Your task to perform on an android device: Is it going to rain this weekend? Image 0: 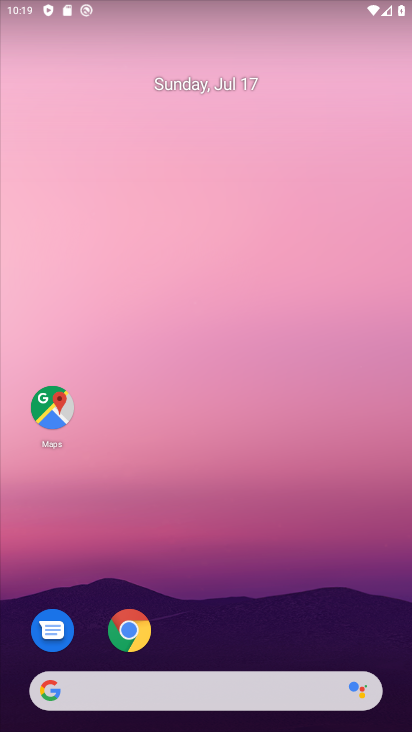
Step 0: drag from (1, 273) to (399, 285)
Your task to perform on an android device: Is it going to rain this weekend? Image 1: 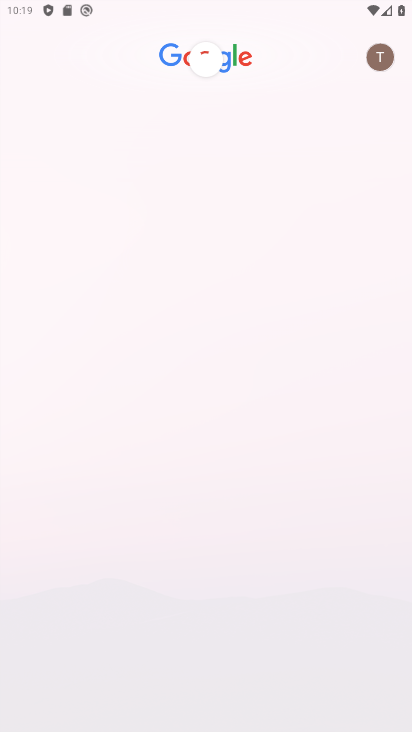
Step 1: drag from (224, 112) to (214, 331)
Your task to perform on an android device: Is it going to rain this weekend? Image 2: 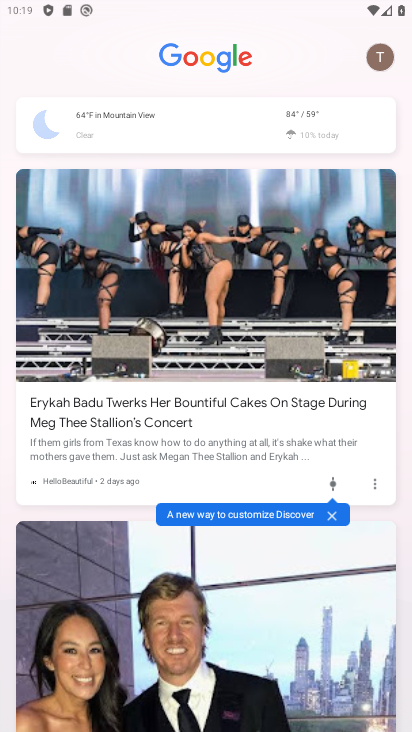
Step 2: click (297, 116)
Your task to perform on an android device: Is it going to rain this weekend? Image 3: 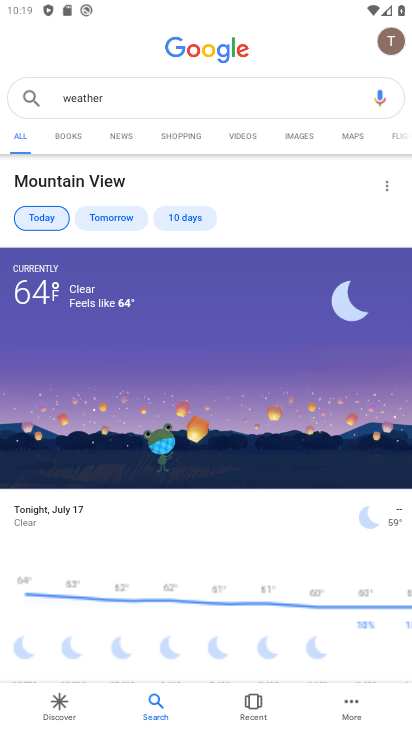
Step 3: click (175, 219)
Your task to perform on an android device: Is it going to rain this weekend? Image 4: 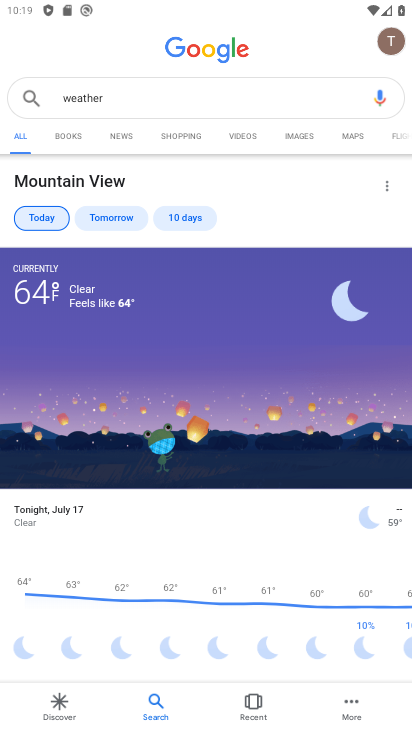
Step 4: click (185, 220)
Your task to perform on an android device: Is it going to rain this weekend? Image 5: 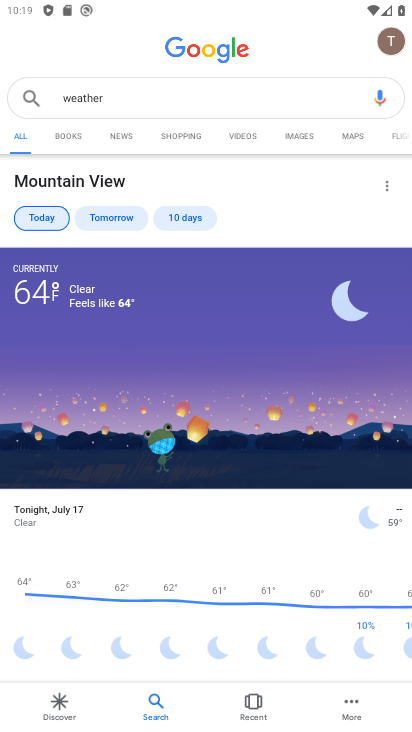
Step 5: click (186, 216)
Your task to perform on an android device: Is it going to rain this weekend? Image 6: 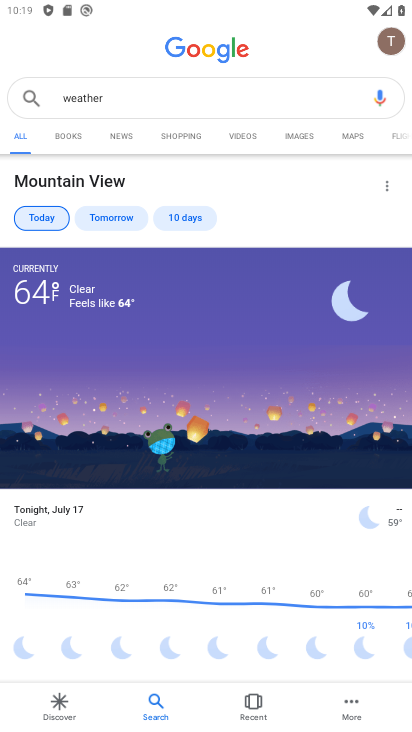
Step 6: click (180, 216)
Your task to perform on an android device: Is it going to rain this weekend? Image 7: 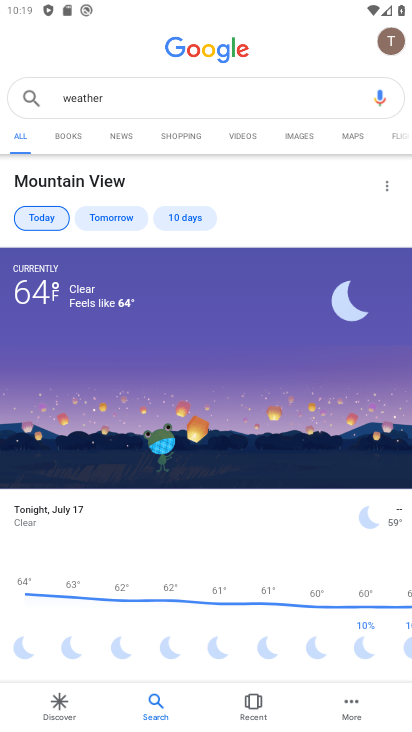
Step 7: click (180, 216)
Your task to perform on an android device: Is it going to rain this weekend? Image 8: 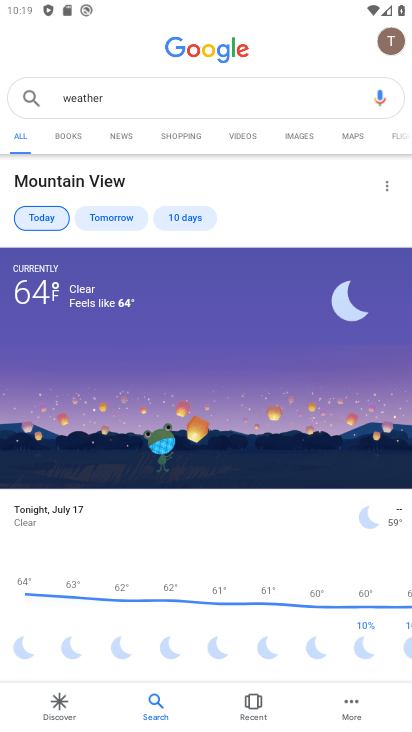
Step 8: click (192, 215)
Your task to perform on an android device: Is it going to rain this weekend? Image 9: 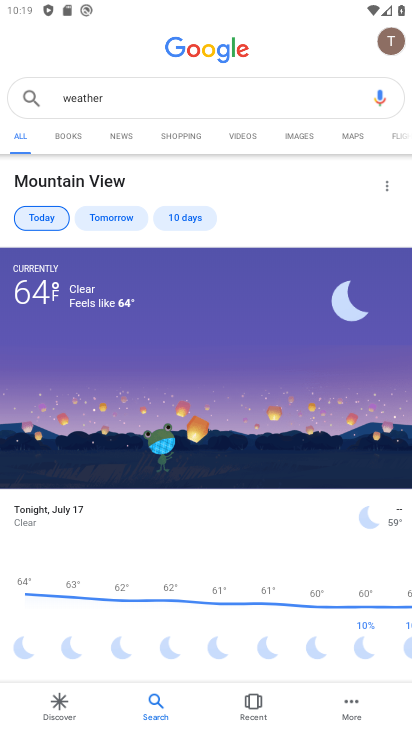
Step 9: click (166, 216)
Your task to perform on an android device: Is it going to rain this weekend? Image 10: 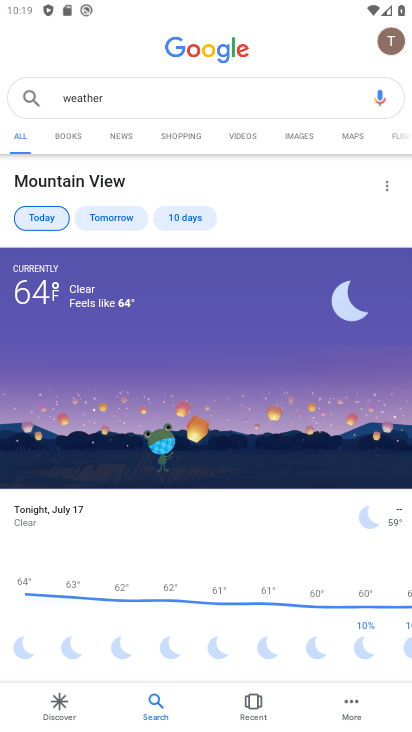
Step 10: click (181, 216)
Your task to perform on an android device: Is it going to rain this weekend? Image 11: 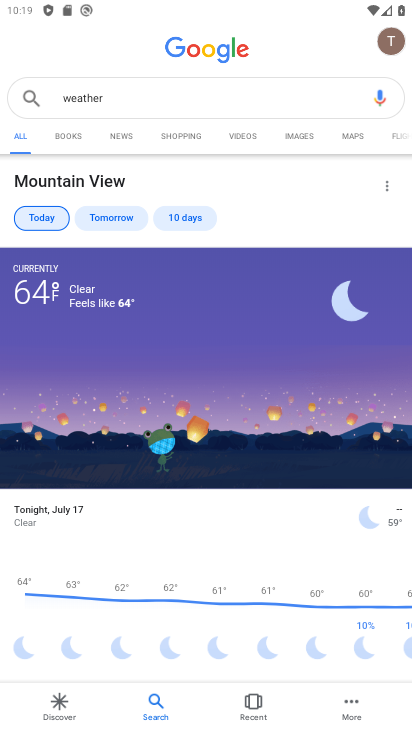
Step 11: click (105, 215)
Your task to perform on an android device: Is it going to rain this weekend? Image 12: 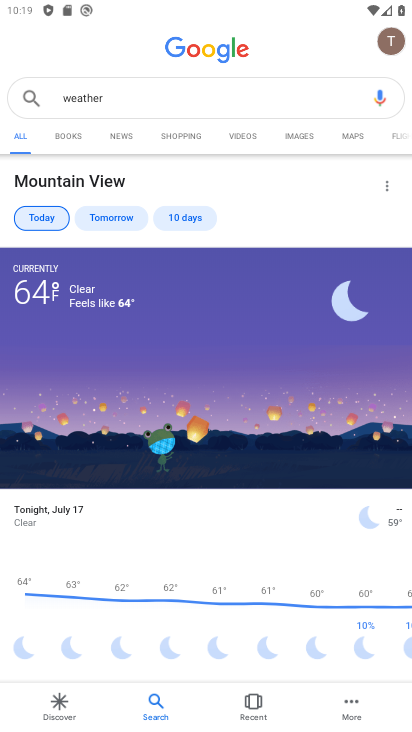
Step 12: click (183, 216)
Your task to perform on an android device: Is it going to rain this weekend? Image 13: 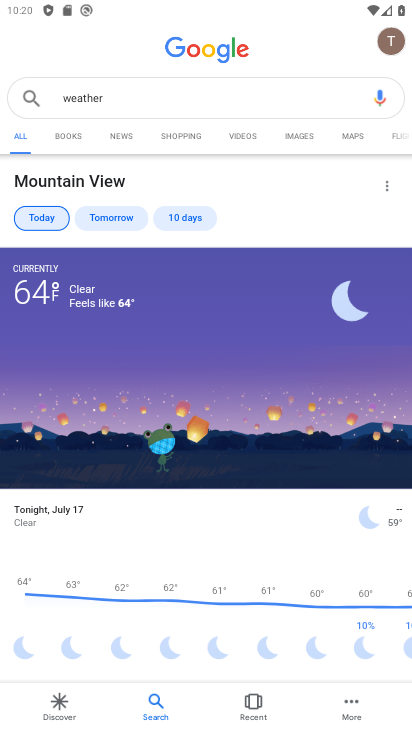
Step 13: click (183, 216)
Your task to perform on an android device: Is it going to rain this weekend? Image 14: 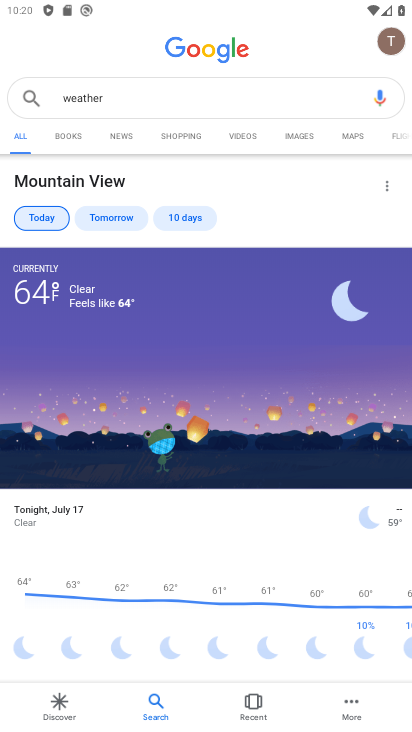
Step 14: task complete